Your task to perform on an android device: check battery use Image 0: 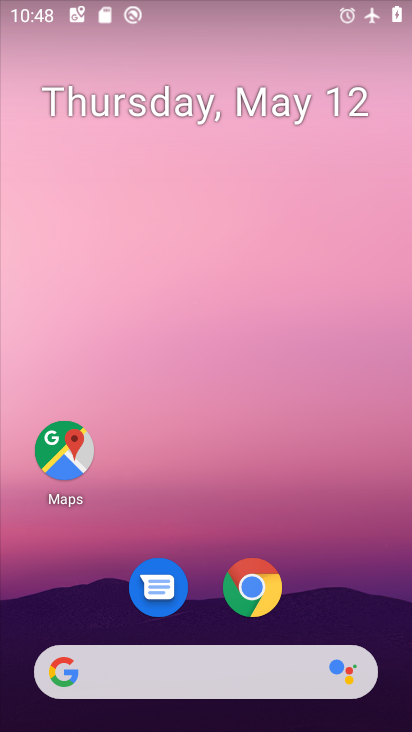
Step 0: drag from (363, 609) to (315, 136)
Your task to perform on an android device: check battery use Image 1: 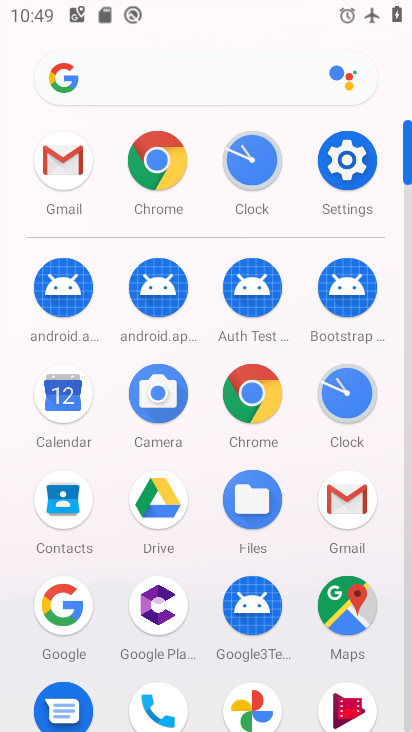
Step 1: click (348, 152)
Your task to perform on an android device: check battery use Image 2: 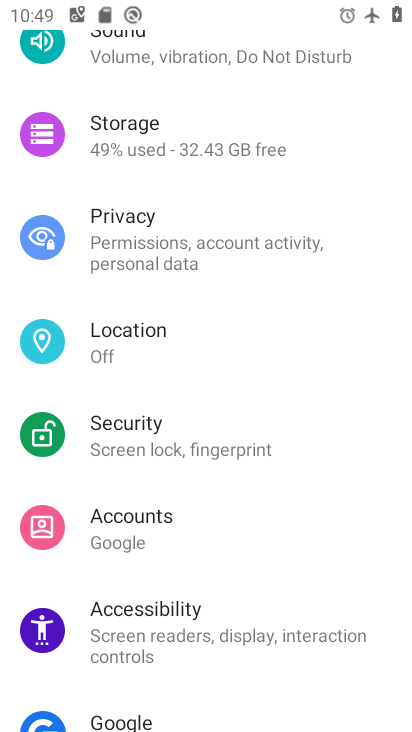
Step 2: drag from (253, 169) to (251, 643)
Your task to perform on an android device: check battery use Image 3: 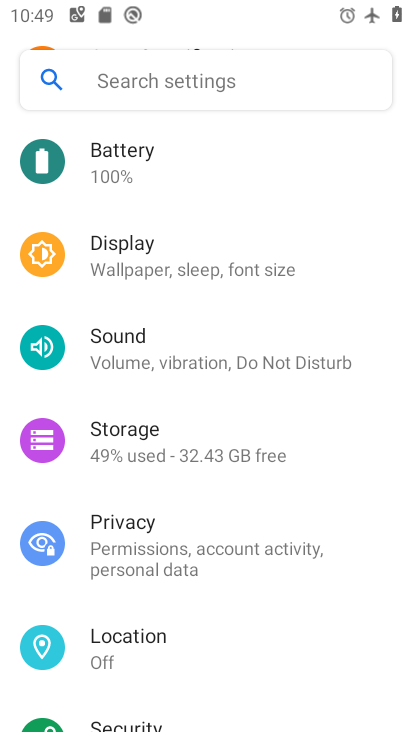
Step 3: click (175, 180)
Your task to perform on an android device: check battery use Image 4: 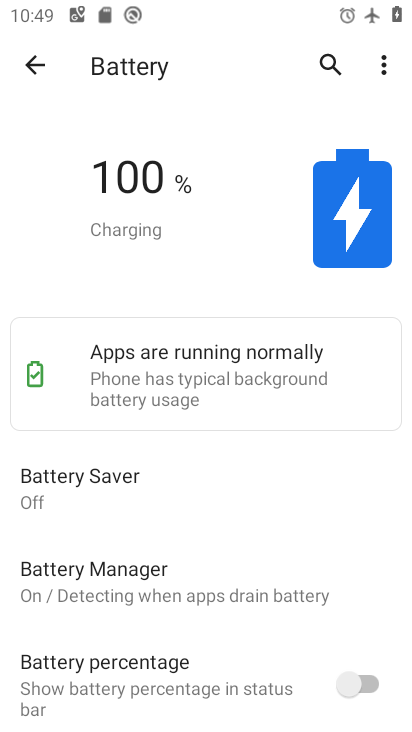
Step 4: task complete